Your task to perform on an android device: set an alarm Image 0: 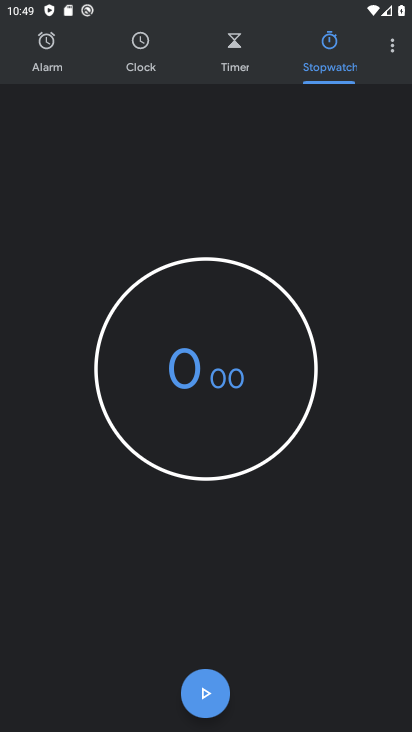
Step 0: press home button
Your task to perform on an android device: set an alarm Image 1: 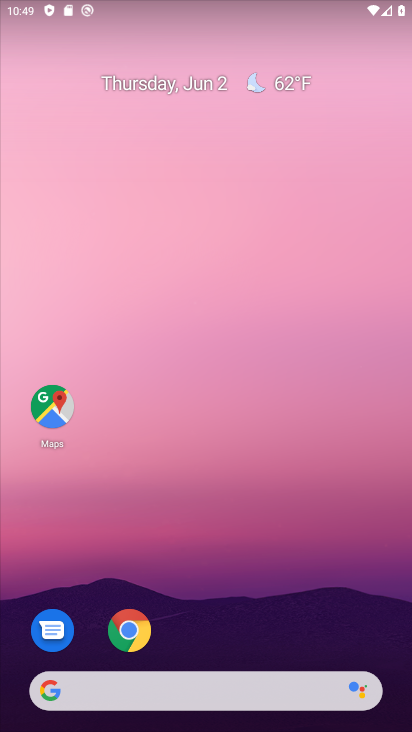
Step 1: drag from (169, 698) to (328, 47)
Your task to perform on an android device: set an alarm Image 2: 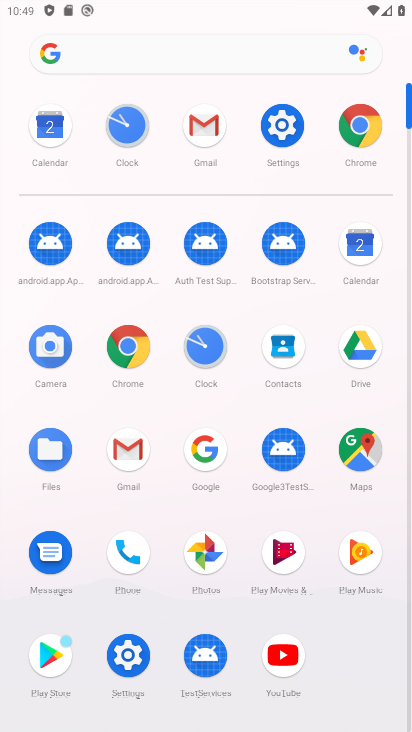
Step 2: click (131, 124)
Your task to perform on an android device: set an alarm Image 3: 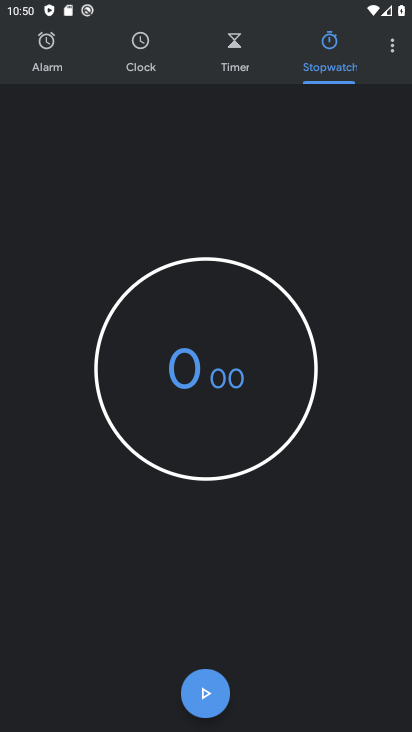
Step 3: click (53, 67)
Your task to perform on an android device: set an alarm Image 4: 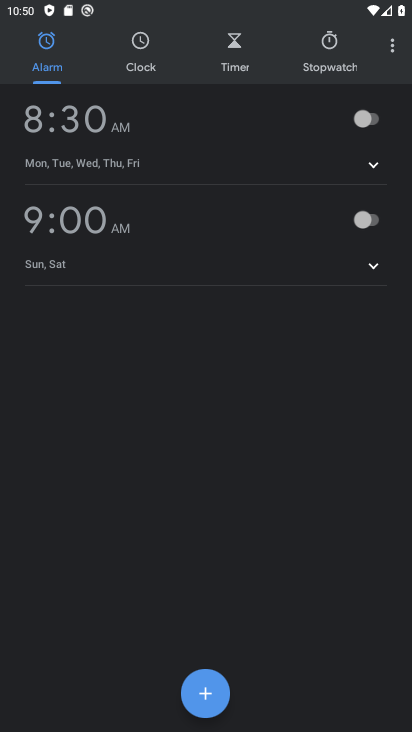
Step 4: click (376, 120)
Your task to perform on an android device: set an alarm Image 5: 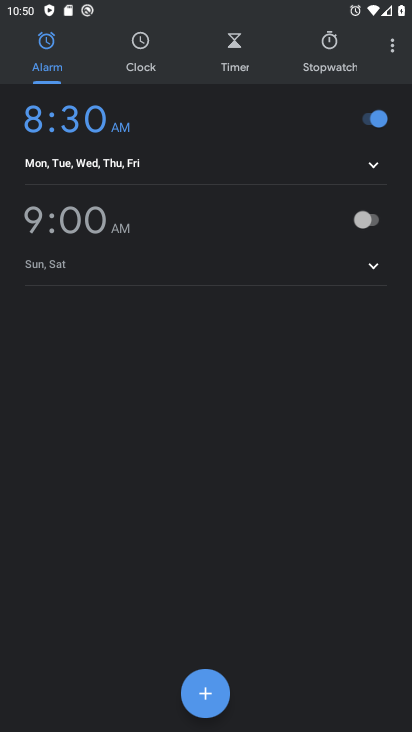
Step 5: task complete